Your task to perform on an android device: Search for pizza restaurants on Maps Image 0: 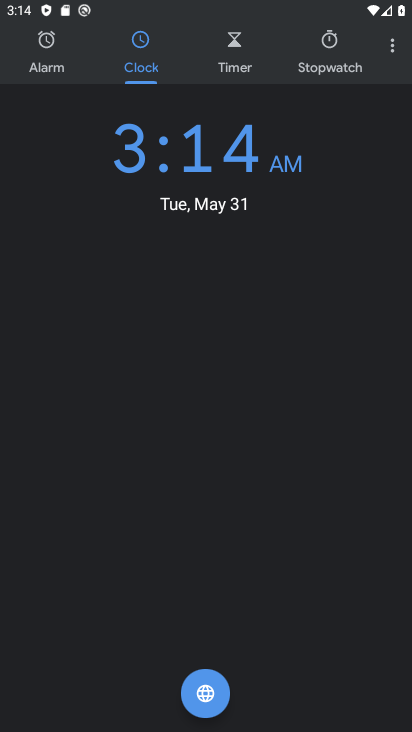
Step 0: press home button
Your task to perform on an android device: Search for pizza restaurants on Maps Image 1: 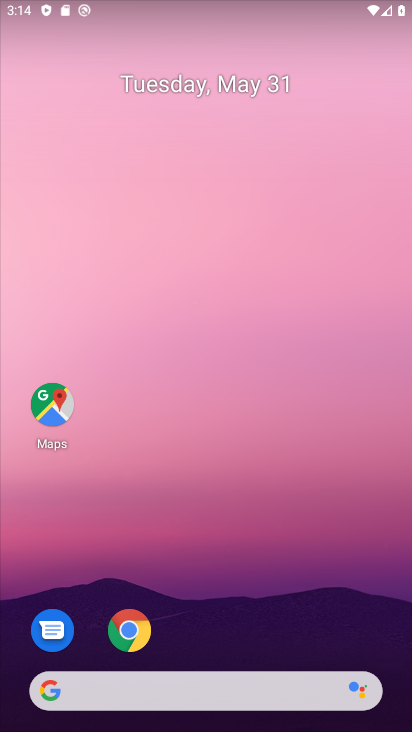
Step 1: click (40, 415)
Your task to perform on an android device: Search for pizza restaurants on Maps Image 2: 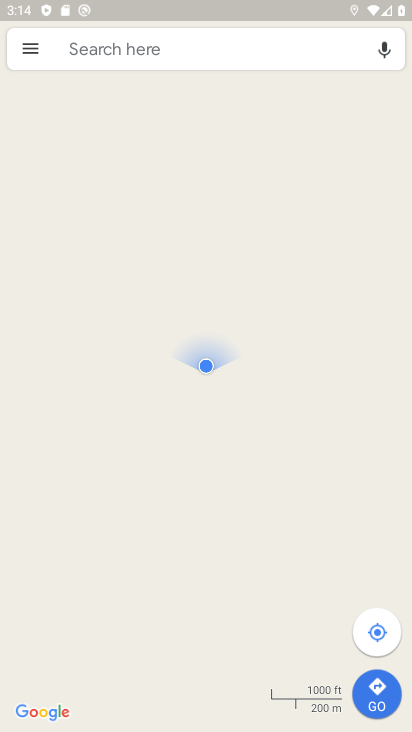
Step 2: click (183, 53)
Your task to perform on an android device: Search for pizza restaurants on Maps Image 3: 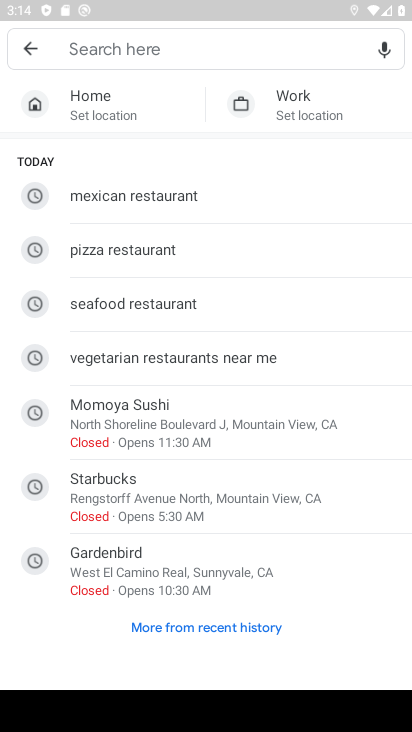
Step 3: type "Pizza restaurants"
Your task to perform on an android device: Search for pizza restaurants on Maps Image 4: 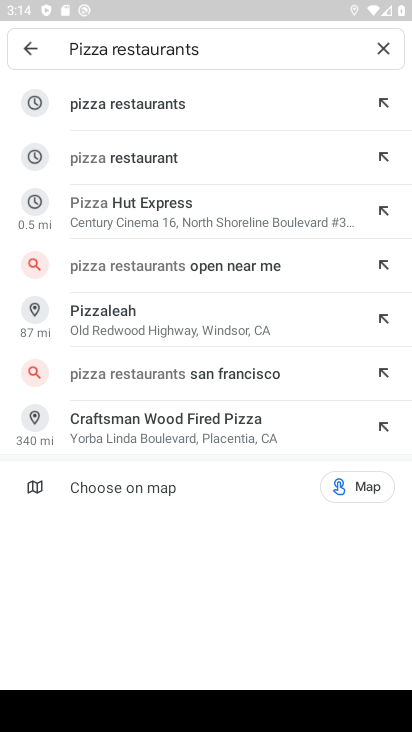
Step 4: click (192, 101)
Your task to perform on an android device: Search for pizza restaurants on Maps Image 5: 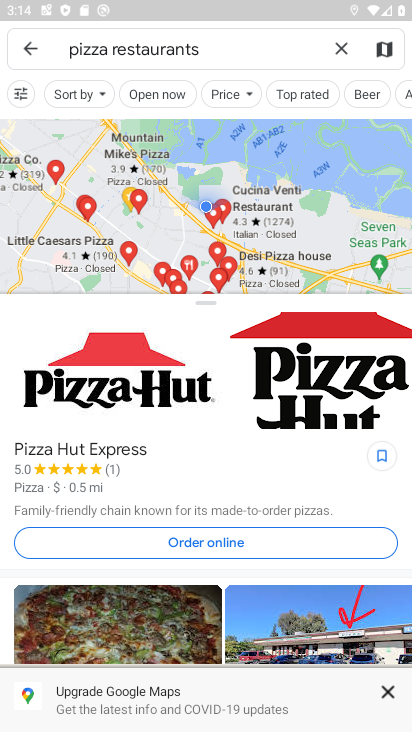
Step 5: task complete